Your task to perform on an android device: change text size in settings app Image 0: 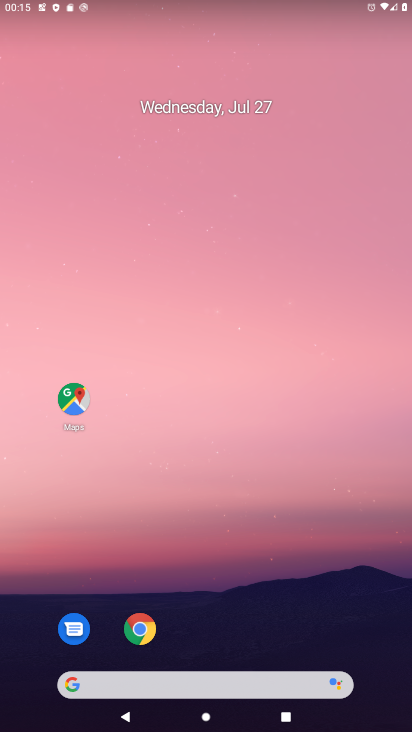
Step 0: drag from (233, 726) to (262, 130)
Your task to perform on an android device: change text size in settings app Image 1: 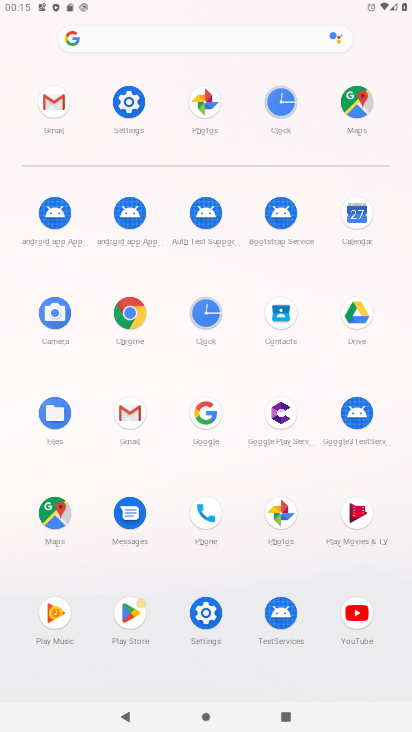
Step 1: click (203, 612)
Your task to perform on an android device: change text size in settings app Image 2: 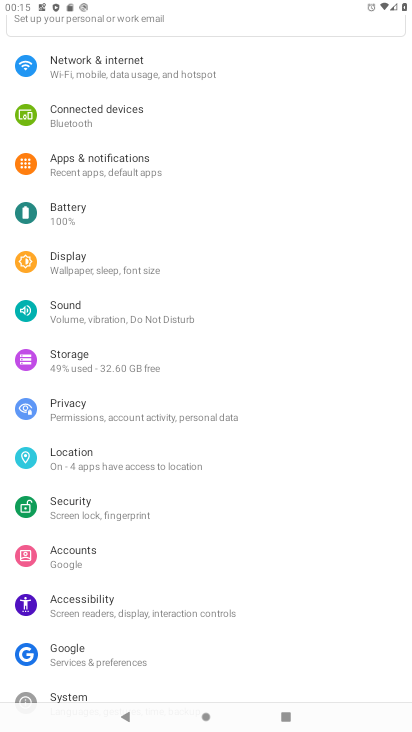
Step 2: click (113, 272)
Your task to perform on an android device: change text size in settings app Image 3: 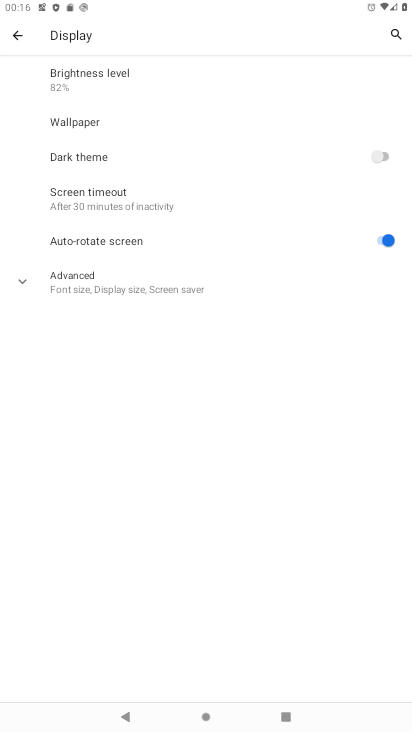
Step 3: click (107, 285)
Your task to perform on an android device: change text size in settings app Image 4: 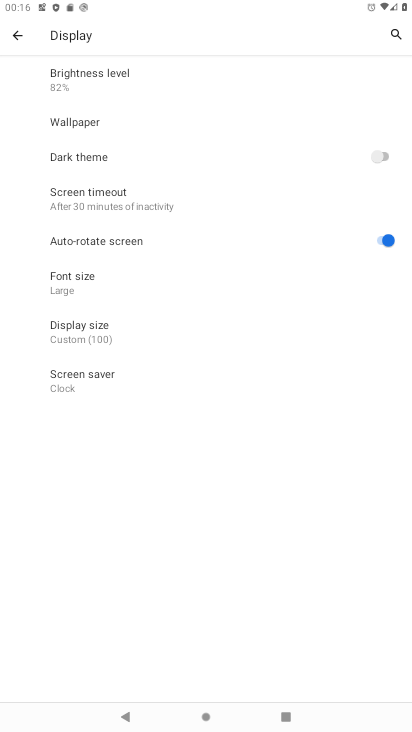
Step 4: click (69, 290)
Your task to perform on an android device: change text size in settings app Image 5: 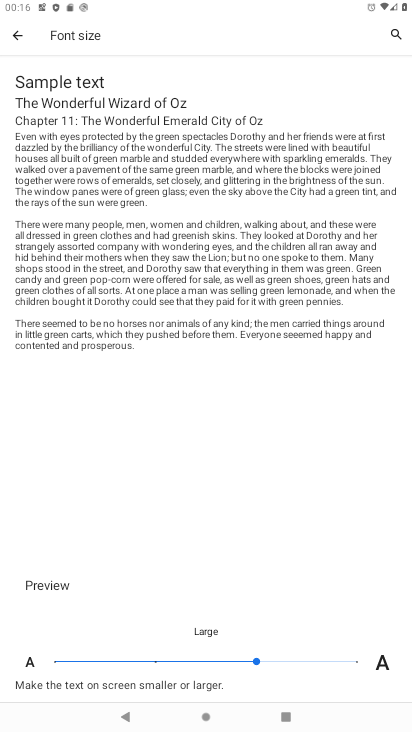
Step 5: click (355, 659)
Your task to perform on an android device: change text size in settings app Image 6: 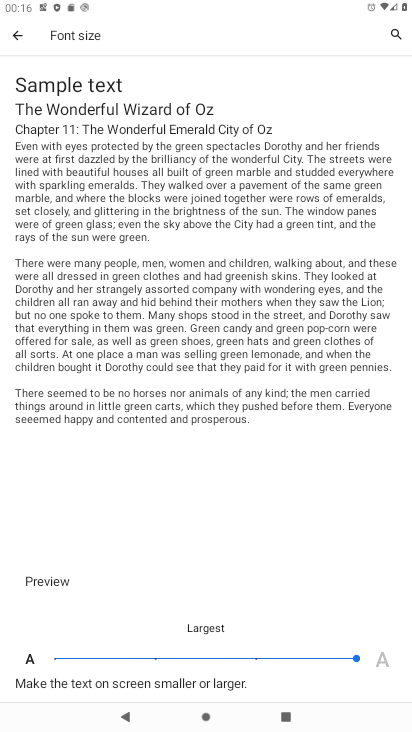
Step 6: task complete